Your task to perform on an android device: check google app version Image 0: 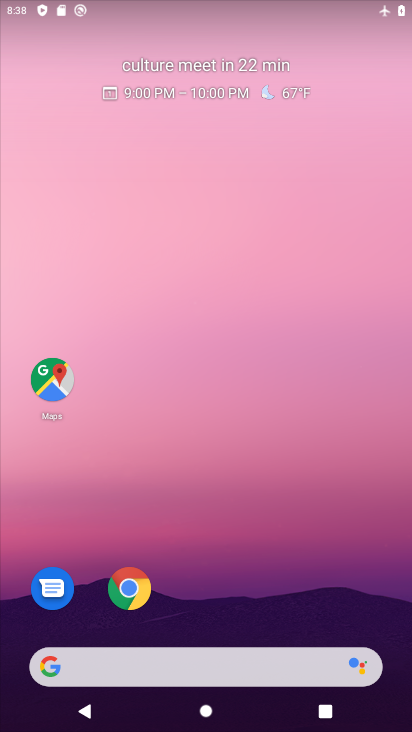
Step 0: drag from (253, 547) to (257, 1)
Your task to perform on an android device: check google app version Image 1: 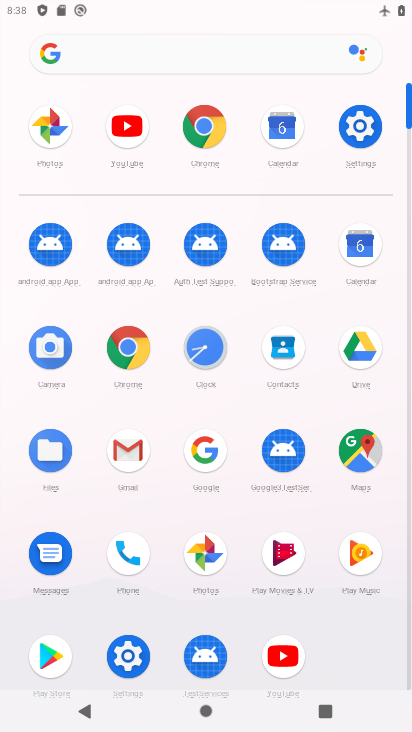
Step 1: click (225, 468)
Your task to perform on an android device: check google app version Image 2: 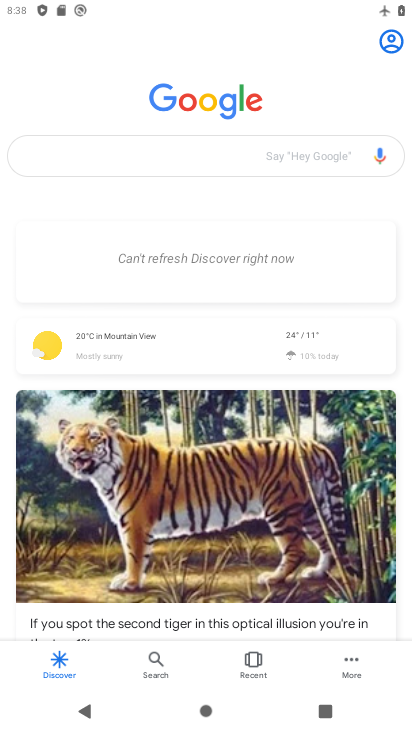
Step 2: click (349, 664)
Your task to perform on an android device: check google app version Image 3: 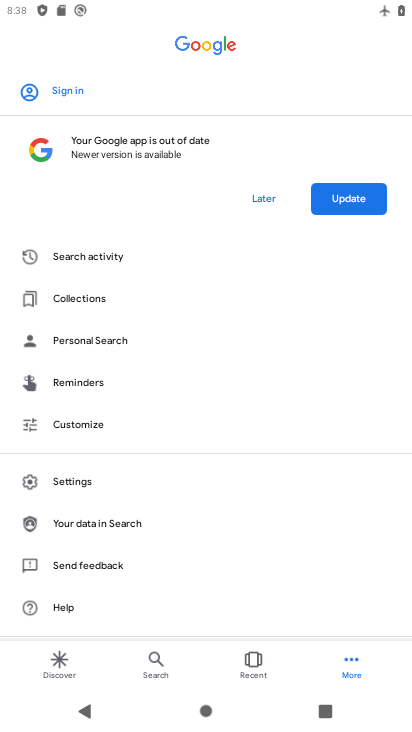
Step 3: drag from (76, 527) to (68, 144)
Your task to perform on an android device: check google app version Image 4: 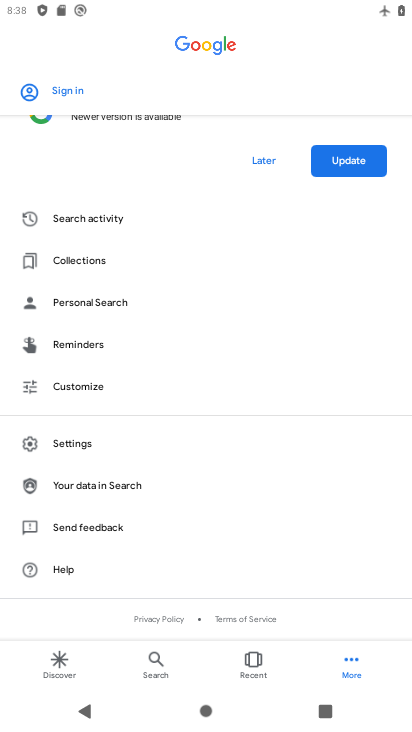
Step 4: click (70, 446)
Your task to perform on an android device: check google app version Image 5: 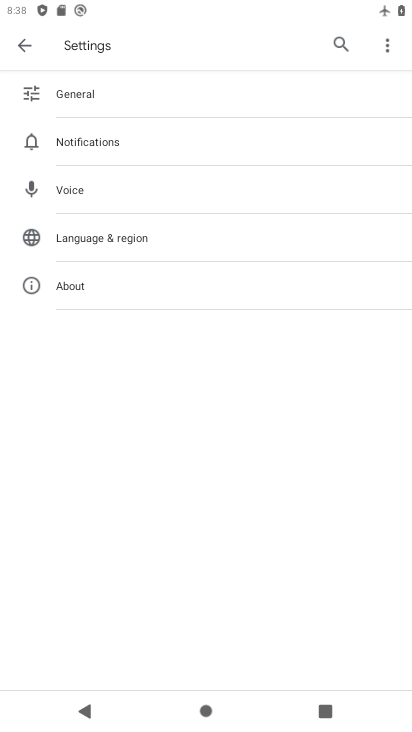
Step 5: click (94, 279)
Your task to perform on an android device: check google app version Image 6: 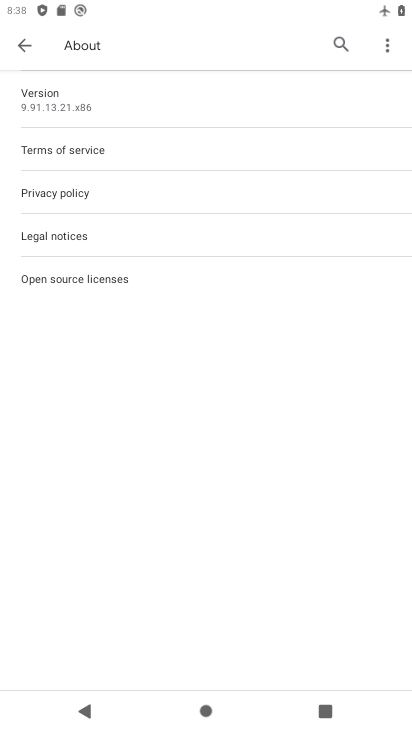
Step 6: click (74, 102)
Your task to perform on an android device: check google app version Image 7: 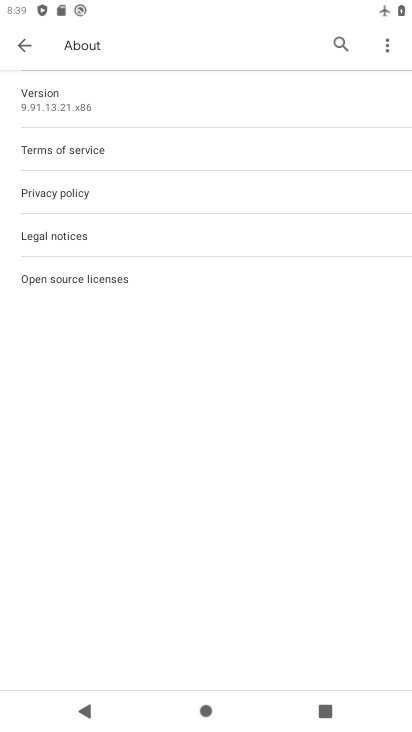
Step 7: task complete